Your task to perform on an android device: Open network settings Image 0: 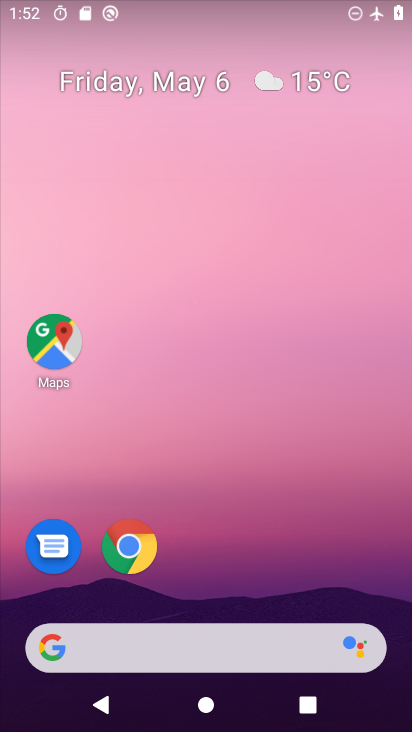
Step 0: drag from (216, 549) to (217, 165)
Your task to perform on an android device: Open network settings Image 1: 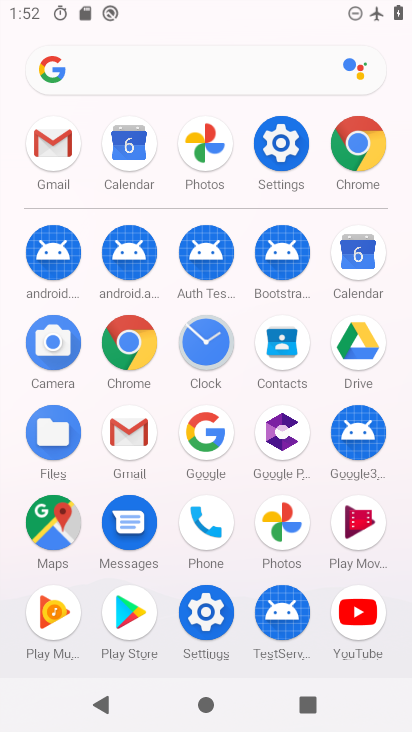
Step 1: click (284, 153)
Your task to perform on an android device: Open network settings Image 2: 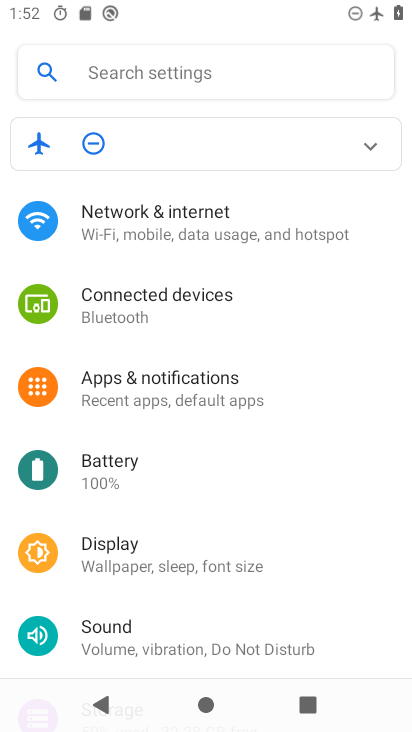
Step 2: click (222, 221)
Your task to perform on an android device: Open network settings Image 3: 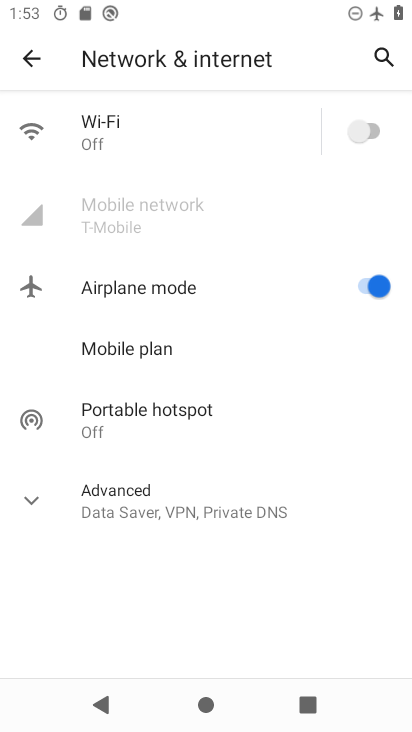
Step 3: task complete